Your task to perform on an android device: Open my contact list Image 0: 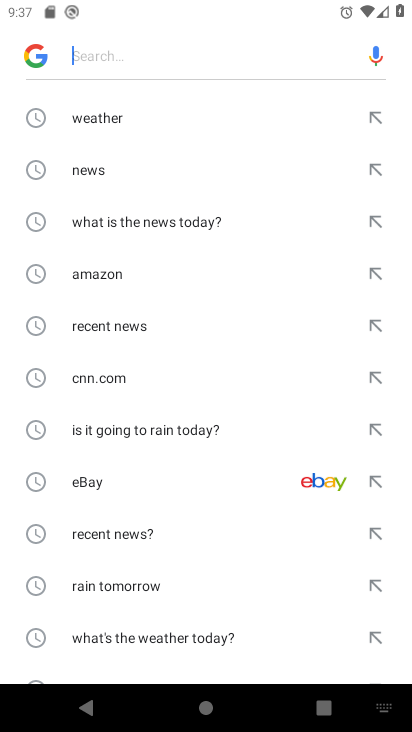
Step 0: press home button
Your task to perform on an android device: Open my contact list Image 1: 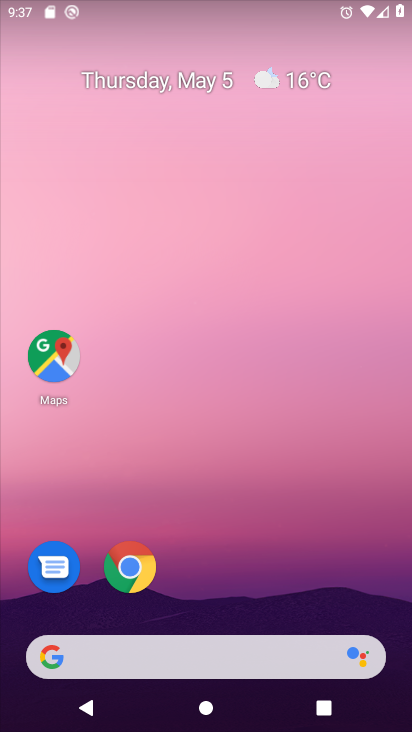
Step 1: drag from (225, 521) to (218, 36)
Your task to perform on an android device: Open my contact list Image 2: 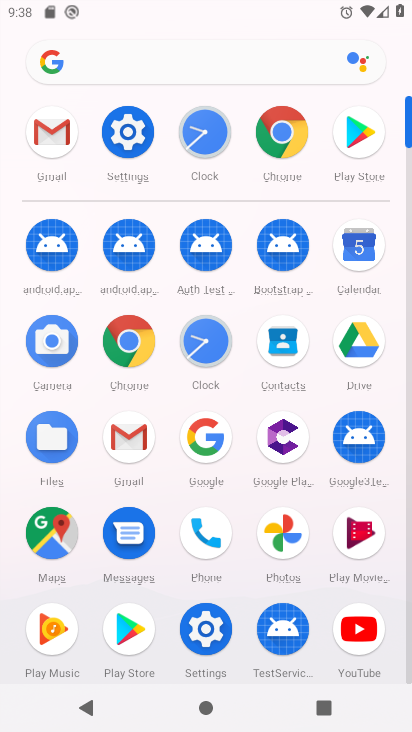
Step 2: click (282, 338)
Your task to perform on an android device: Open my contact list Image 3: 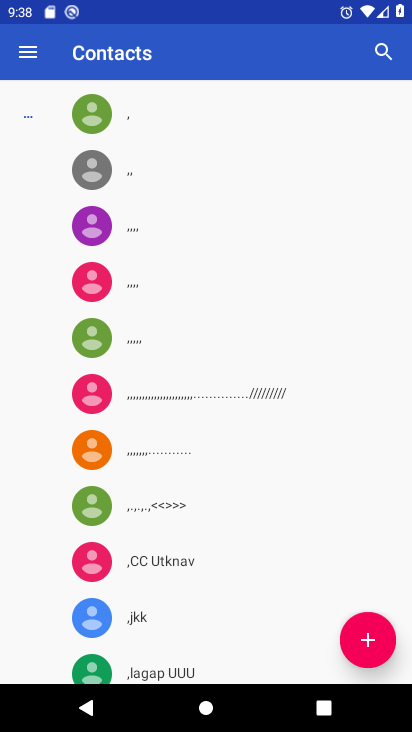
Step 3: task complete